Your task to perform on an android device: Go to Google maps Image 0: 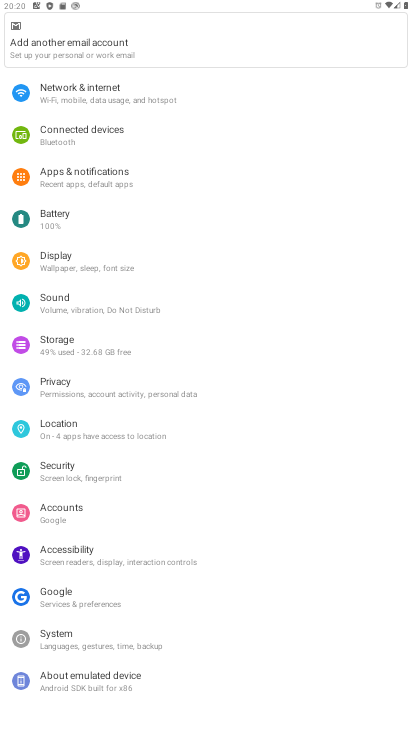
Step 0: press home button
Your task to perform on an android device: Go to Google maps Image 1: 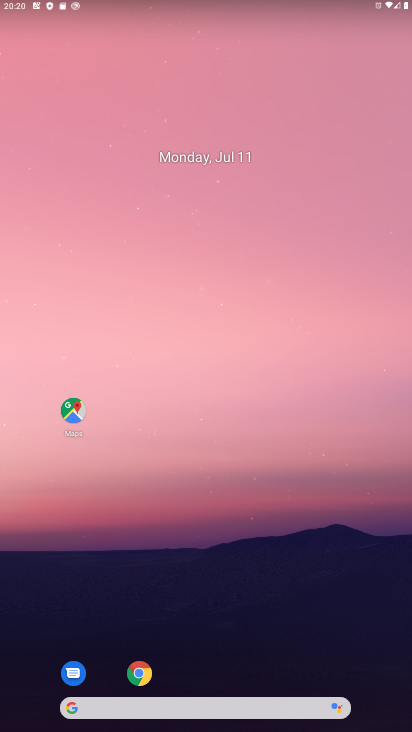
Step 1: click (73, 407)
Your task to perform on an android device: Go to Google maps Image 2: 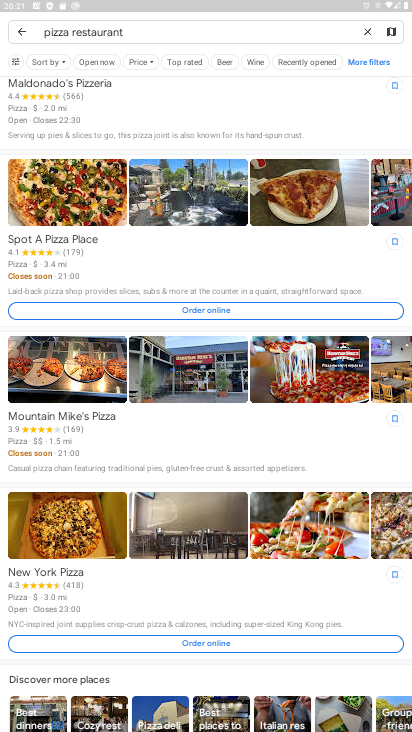
Step 2: click (22, 27)
Your task to perform on an android device: Go to Google maps Image 3: 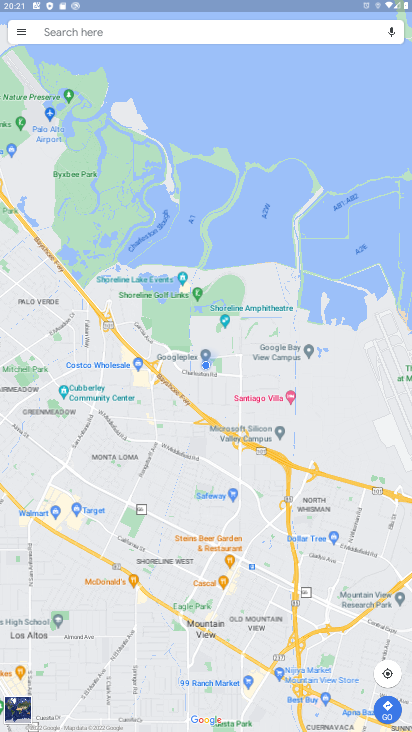
Step 3: task complete